Your task to perform on an android device: Open my contact list Image 0: 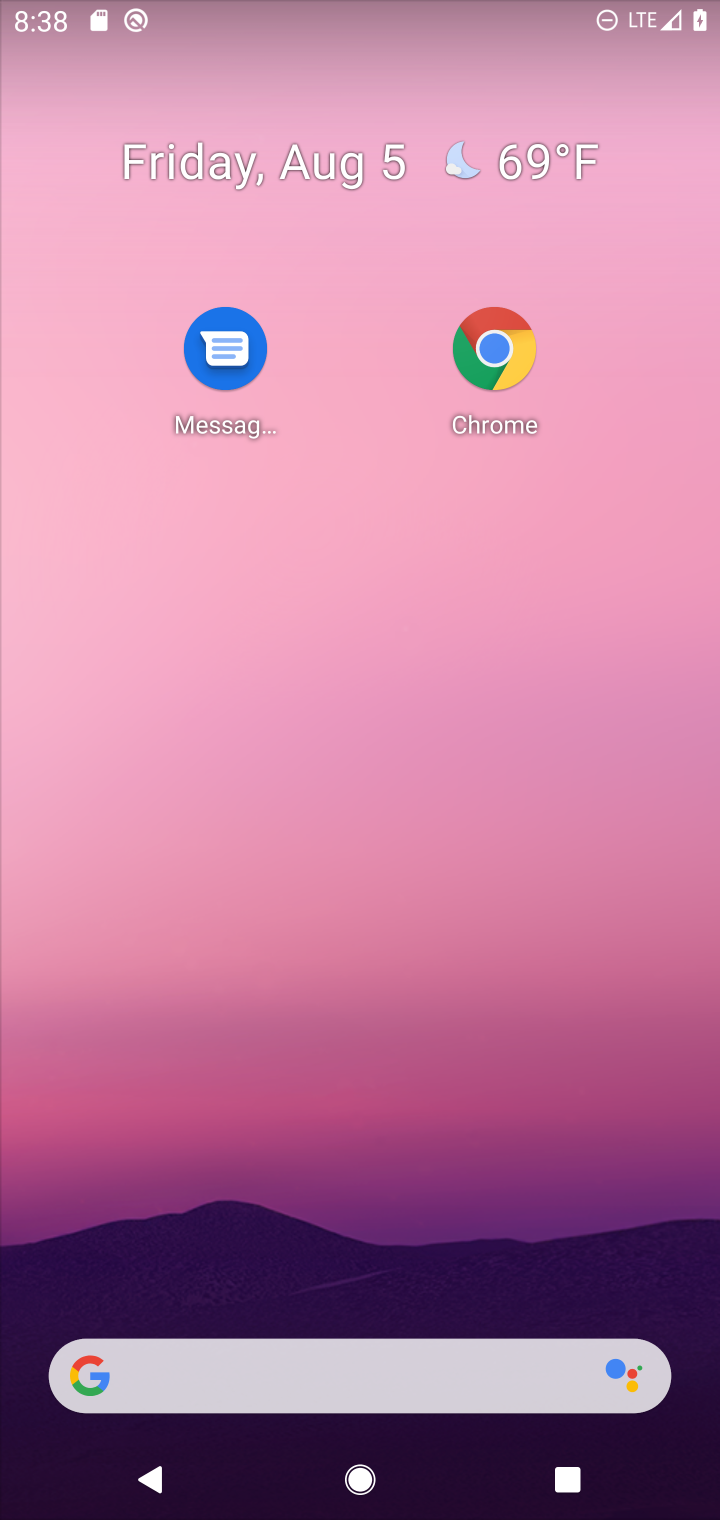
Step 0: press home button
Your task to perform on an android device: Open my contact list Image 1: 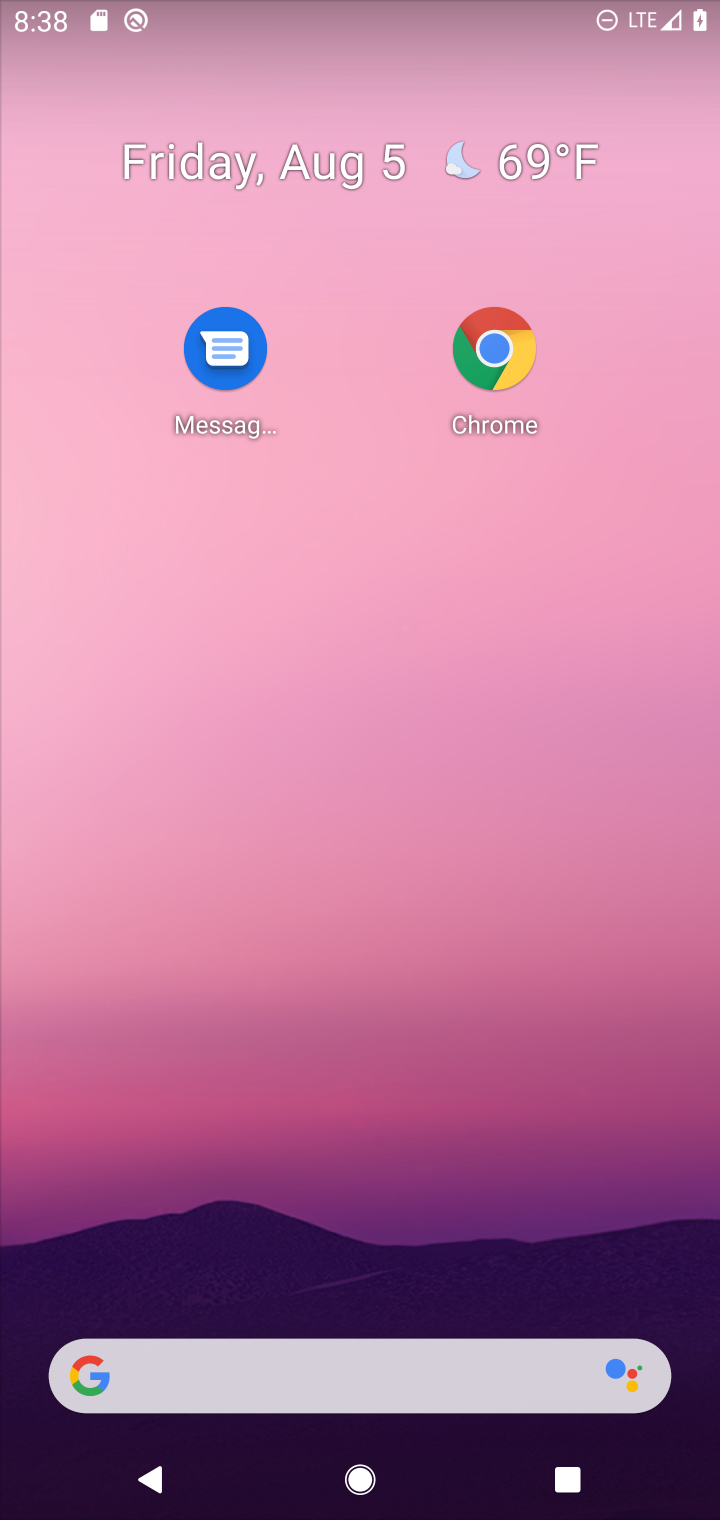
Step 1: drag from (503, 1417) to (461, 789)
Your task to perform on an android device: Open my contact list Image 2: 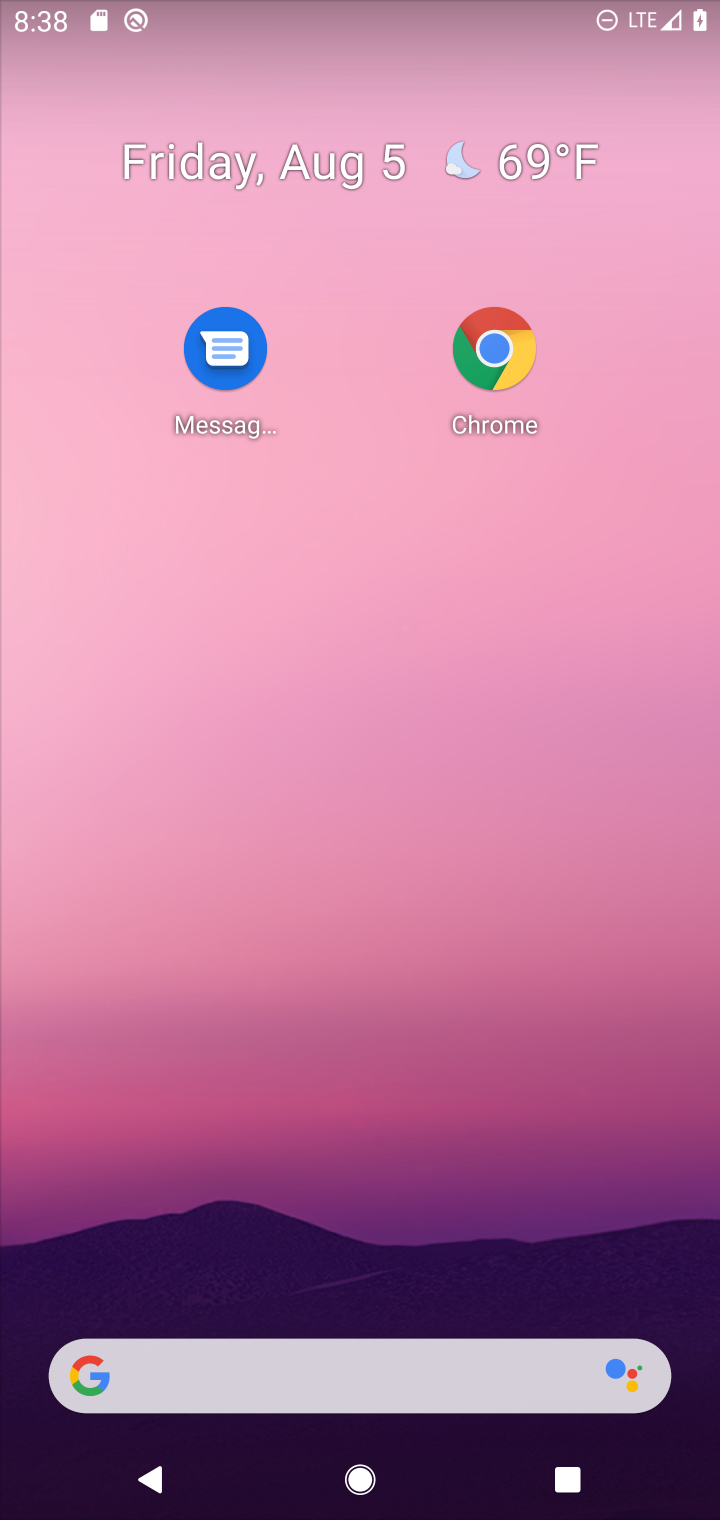
Step 2: drag from (458, 1324) to (381, 430)
Your task to perform on an android device: Open my contact list Image 3: 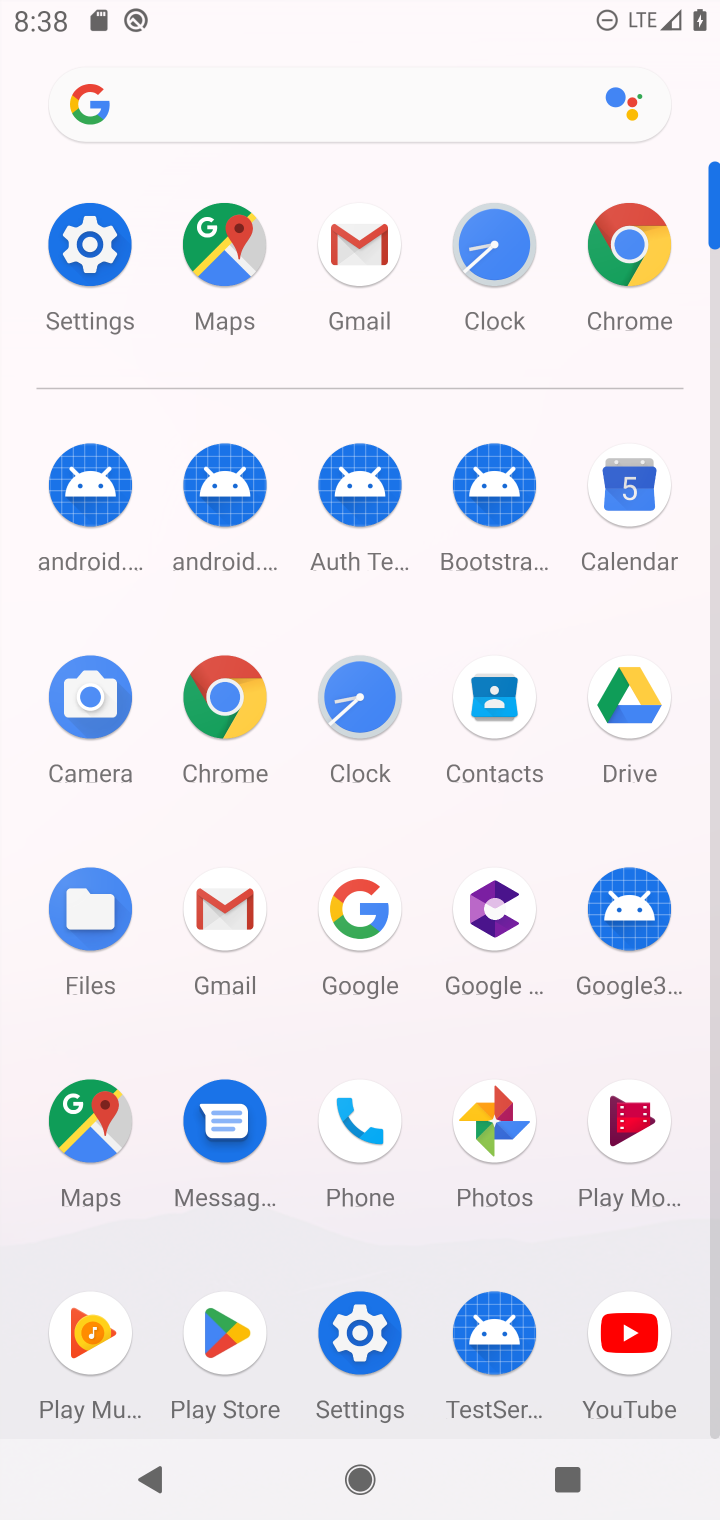
Step 3: click (472, 694)
Your task to perform on an android device: Open my contact list Image 4: 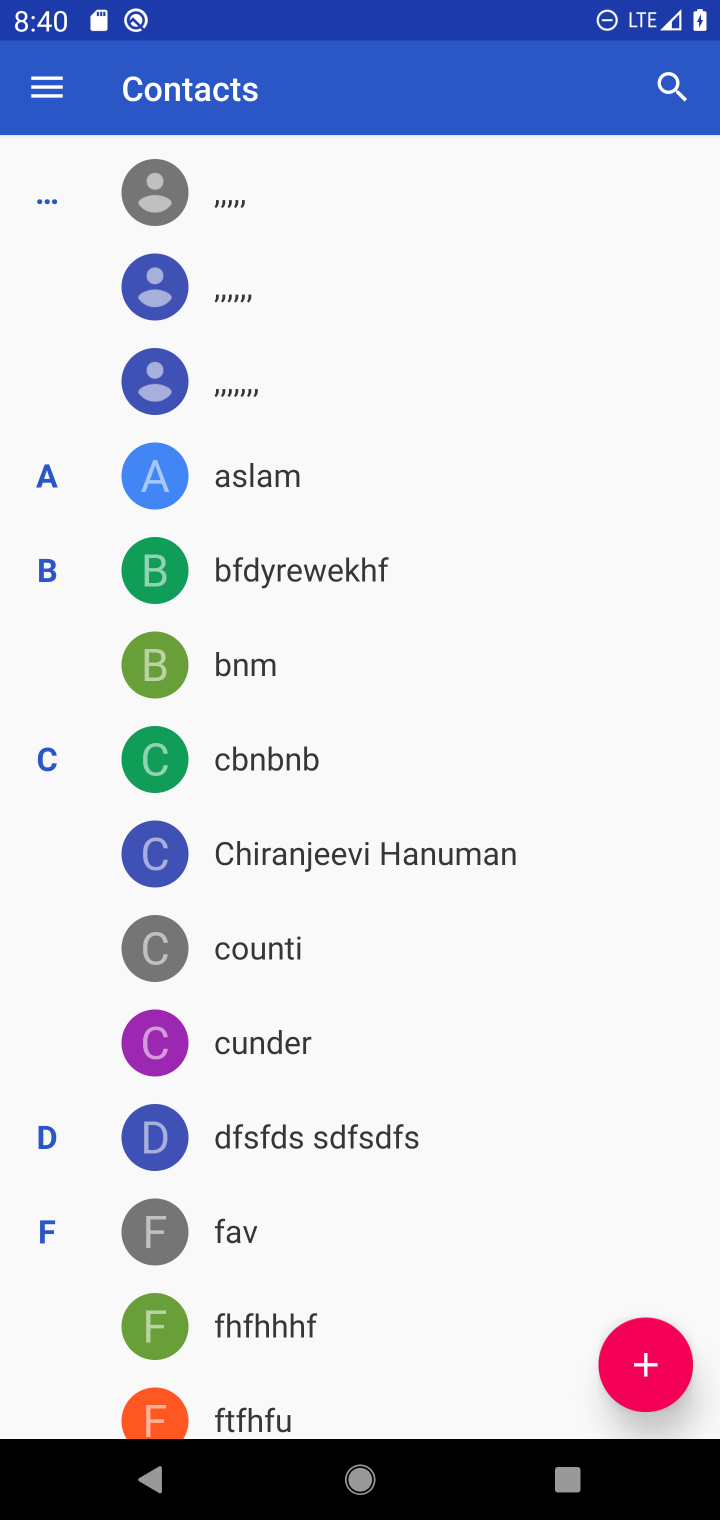
Step 4: task complete